Your task to perform on an android device: open app "Roku - Official Remote Control" Image 0: 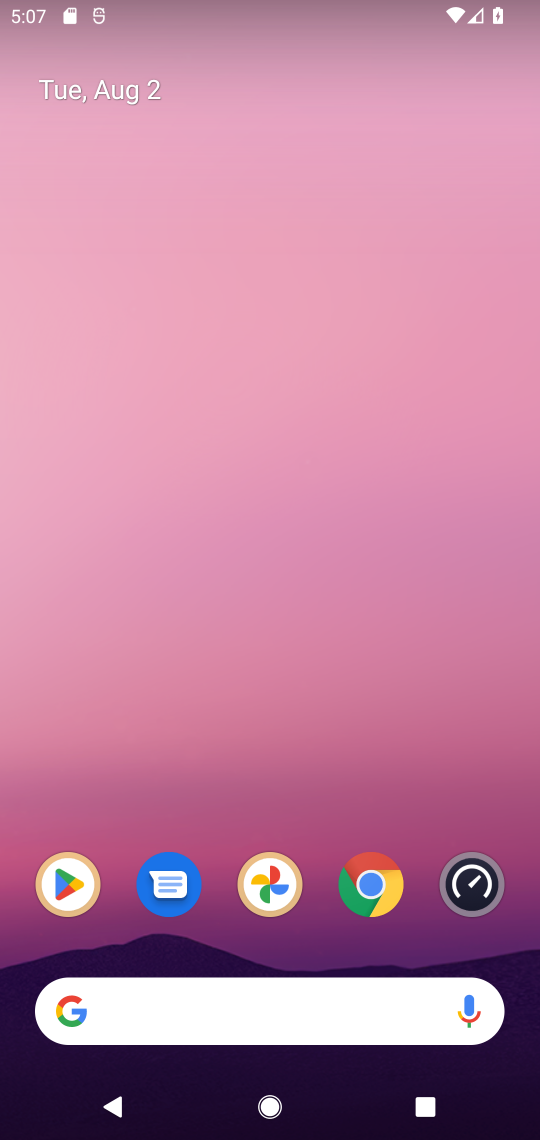
Step 0: drag from (317, 702) to (255, 108)
Your task to perform on an android device: open app "Roku - Official Remote Control" Image 1: 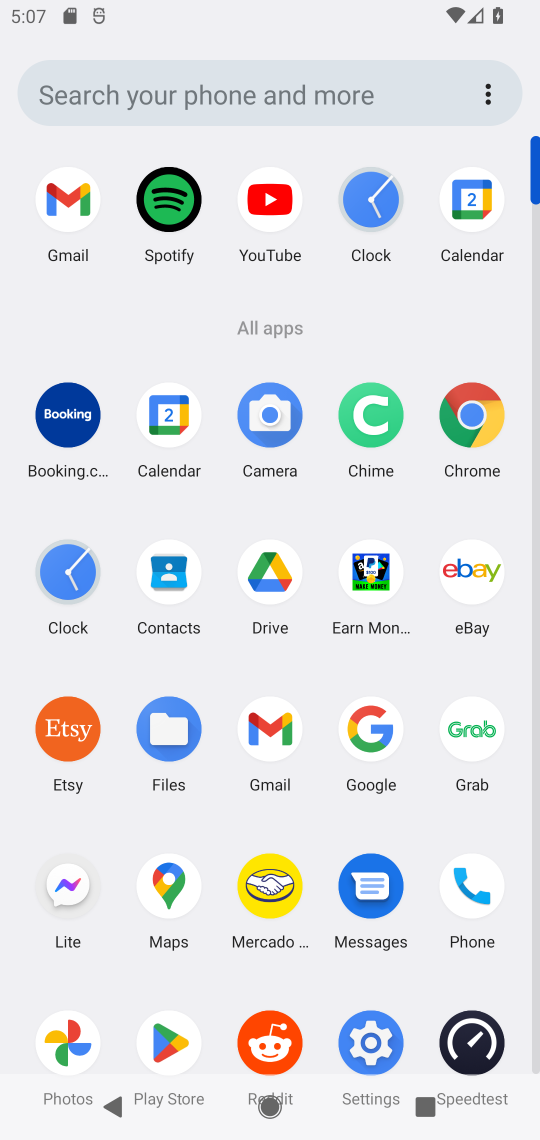
Step 1: click (164, 1037)
Your task to perform on an android device: open app "Roku - Official Remote Control" Image 2: 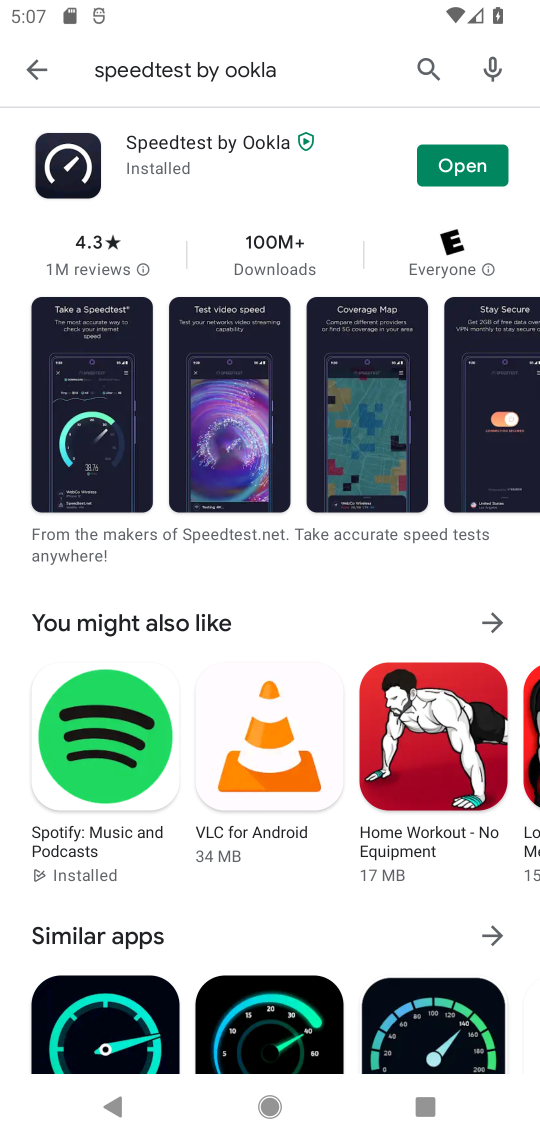
Step 2: click (27, 55)
Your task to perform on an android device: open app "Roku - Official Remote Control" Image 3: 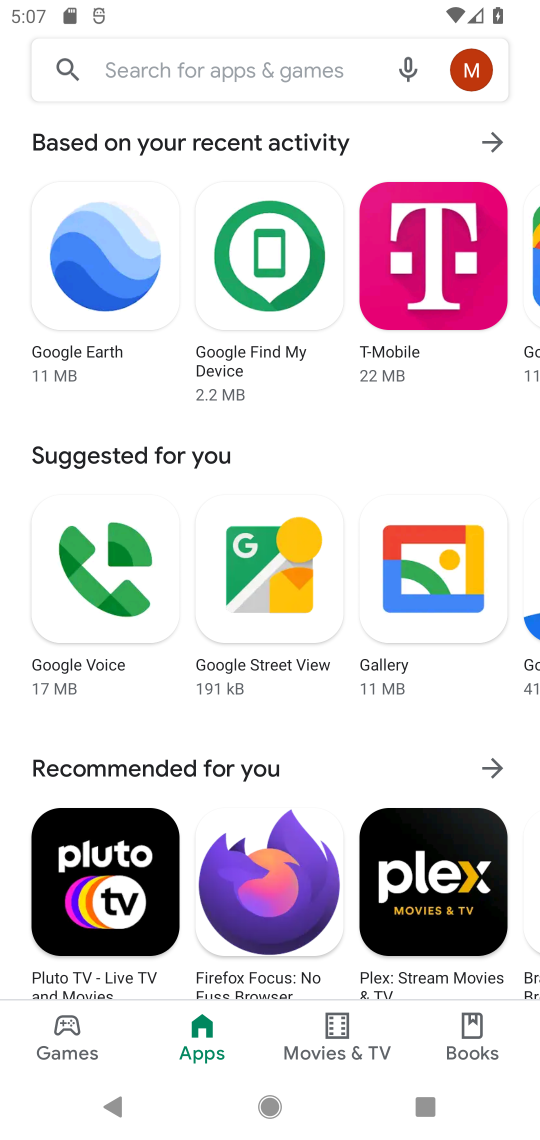
Step 3: click (180, 59)
Your task to perform on an android device: open app "Roku - Official Remote Control" Image 4: 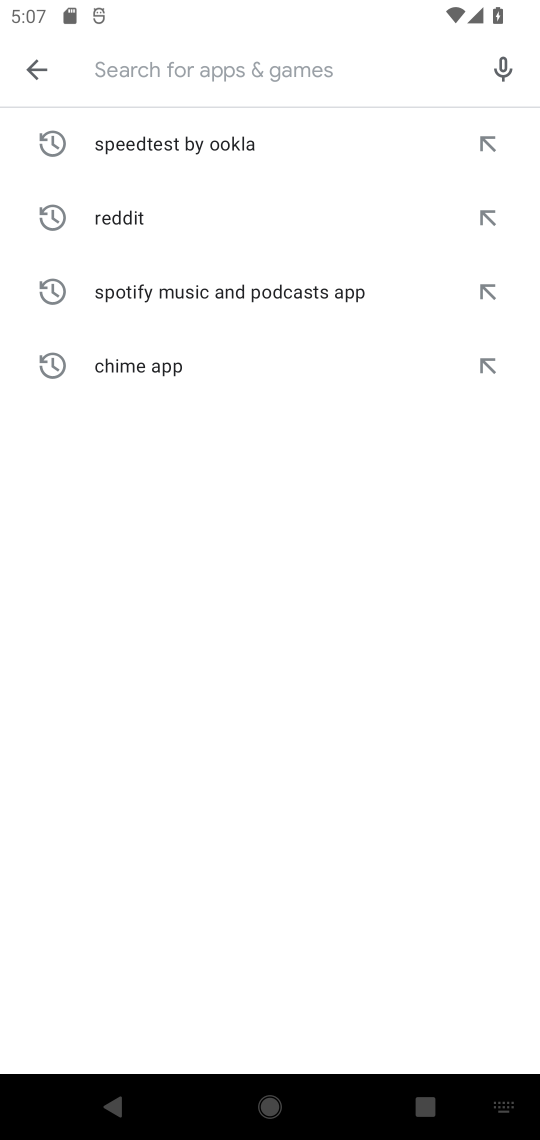
Step 4: type "Roku"
Your task to perform on an android device: open app "Roku - Official Remote Control" Image 5: 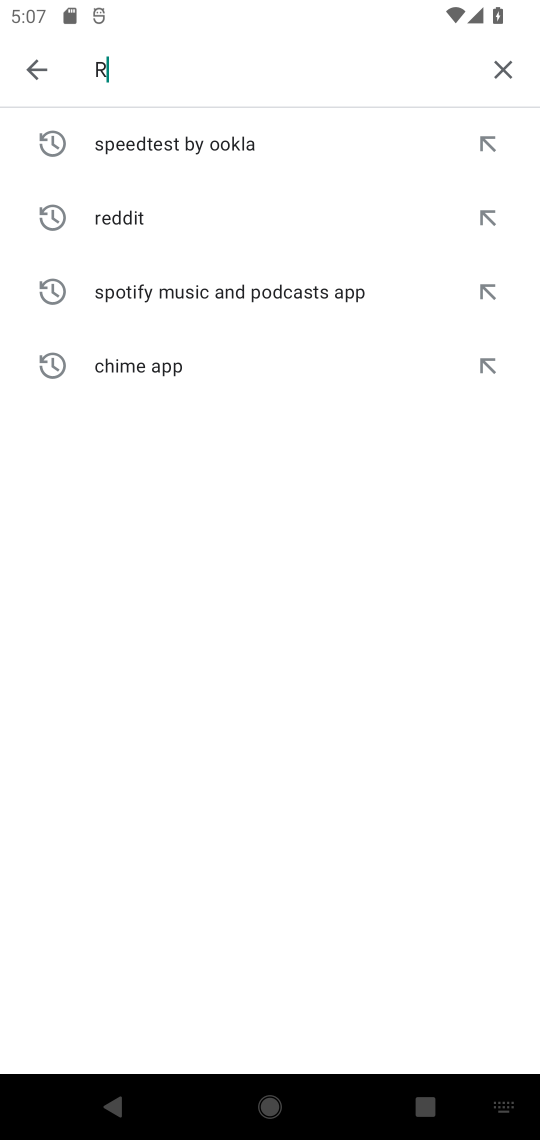
Step 5: type ""
Your task to perform on an android device: open app "Roku - Official Remote Control" Image 6: 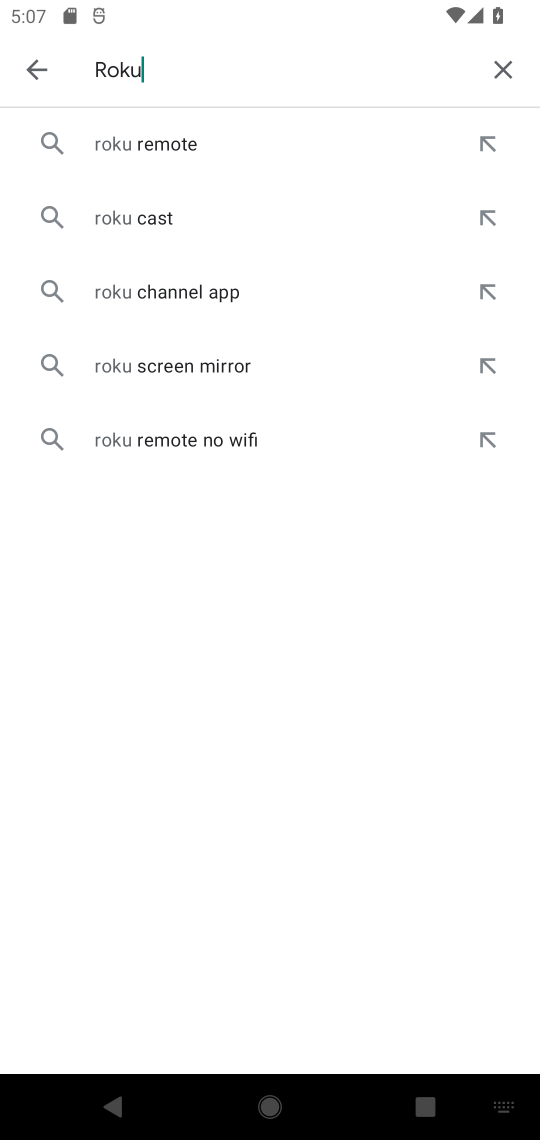
Step 6: click (158, 143)
Your task to perform on an android device: open app "Roku - Official Remote Control" Image 7: 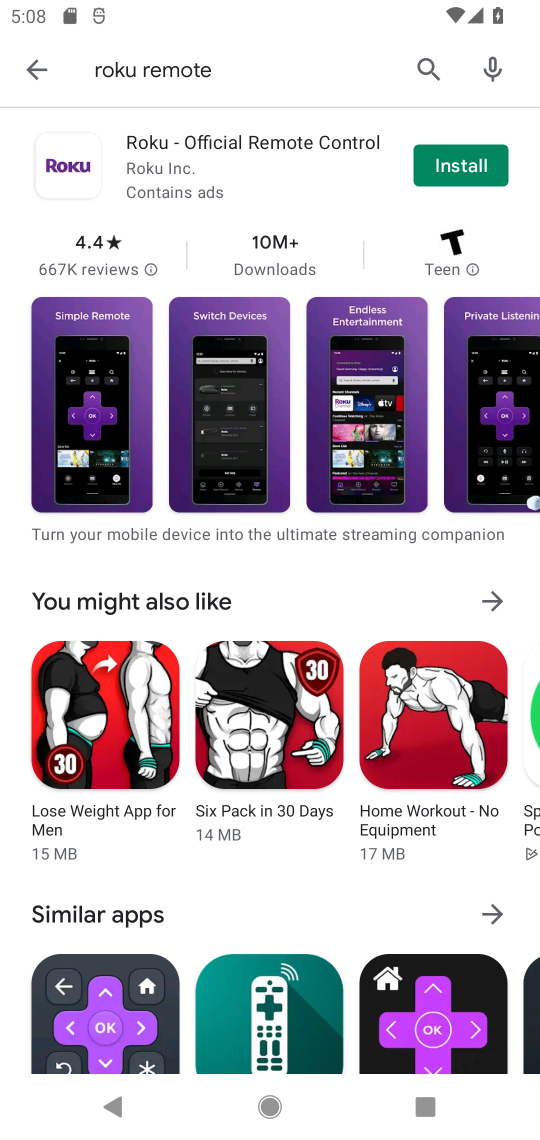
Step 7: click (470, 157)
Your task to perform on an android device: open app "Roku - Official Remote Control" Image 8: 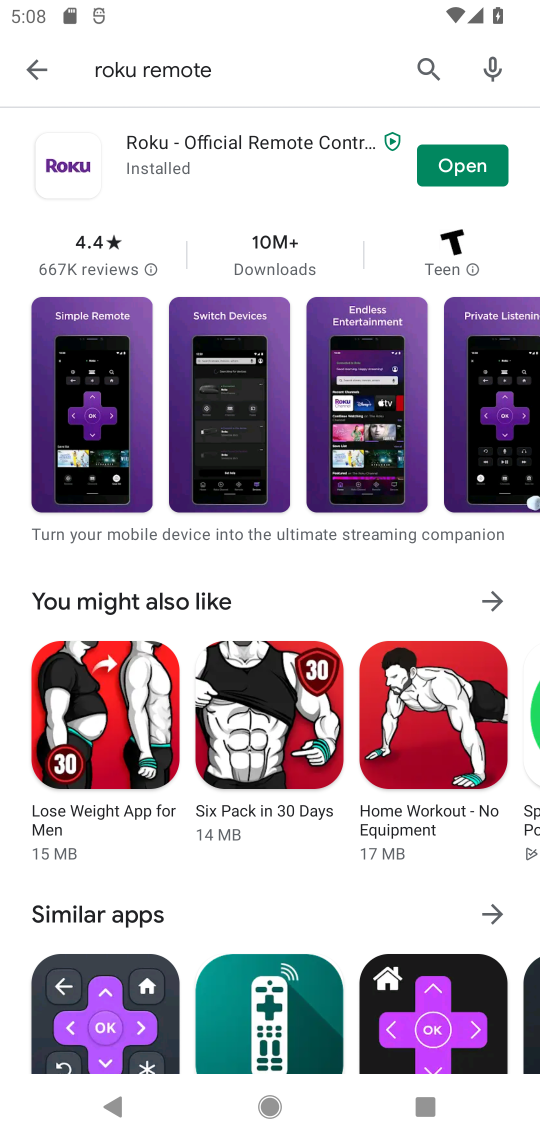
Step 8: click (472, 170)
Your task to perform on an android device: open app "Roku - Official Remote Control" Image 9: 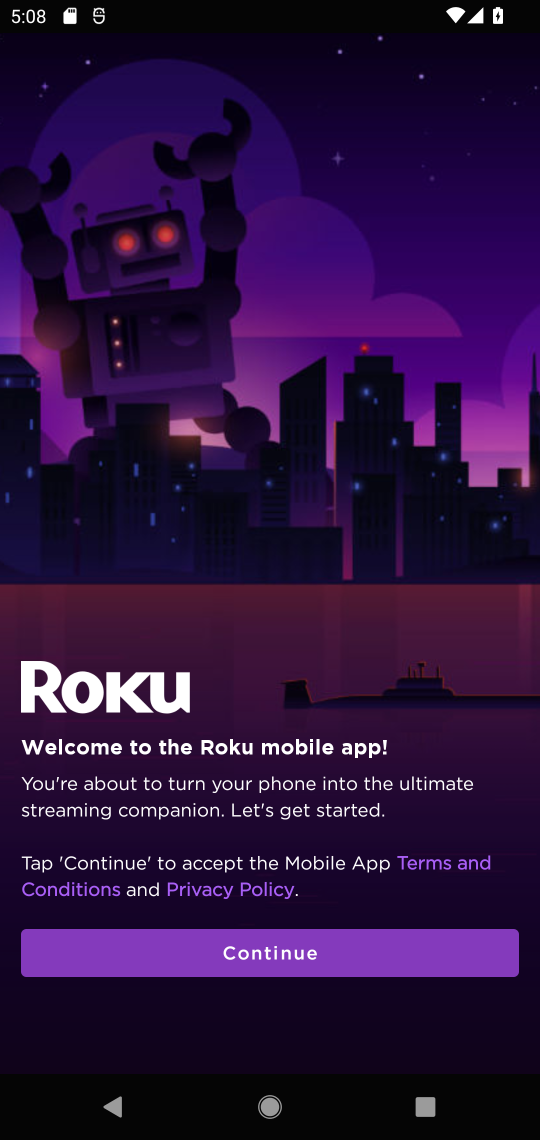
Step 9: task complete